Your task to perform on an android device: toggle javascript in the chrome app Image 0: 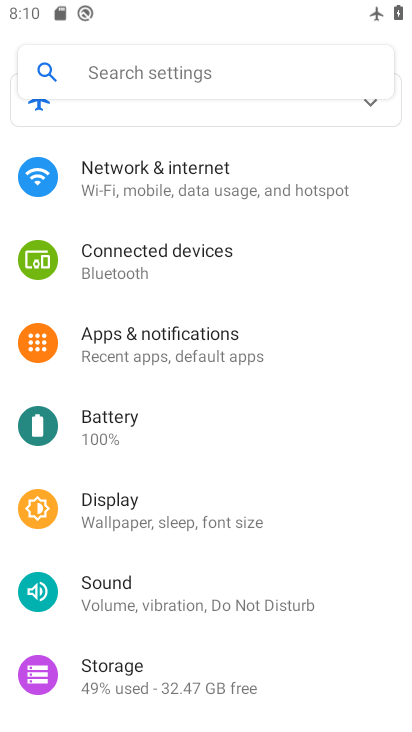
Step 0: press home button
Your task to perform on an android device: toggle javascript in the chrome app Image 1: 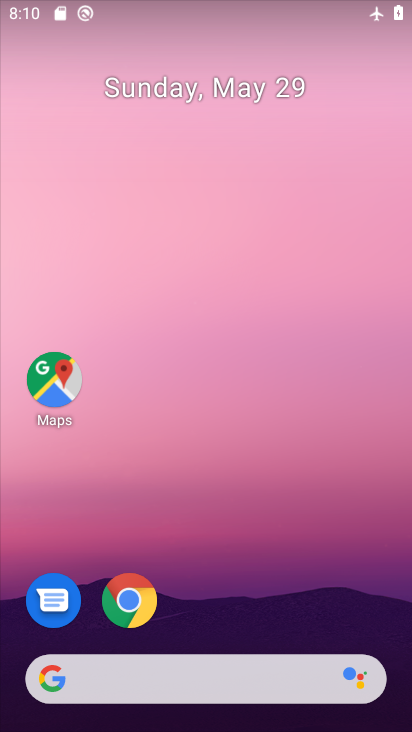
Step 1: click (141, 602)
Your task to perform on an android device: toggle javascript in the chrome app Image 2: 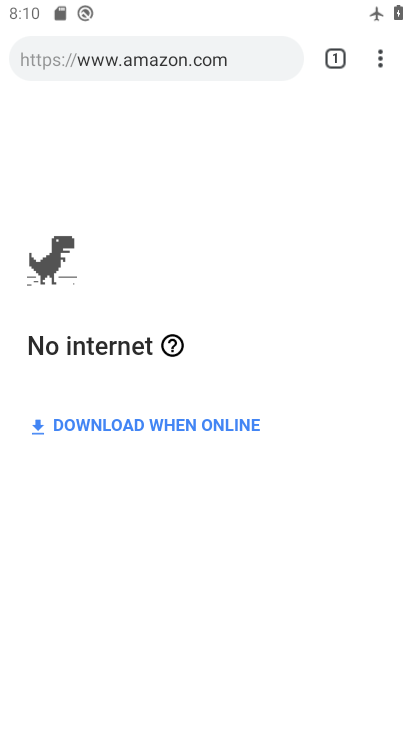
Step 2: click (387, 64)
Your task to perform on an android device: toggle javascript in the chrome app Image 3: 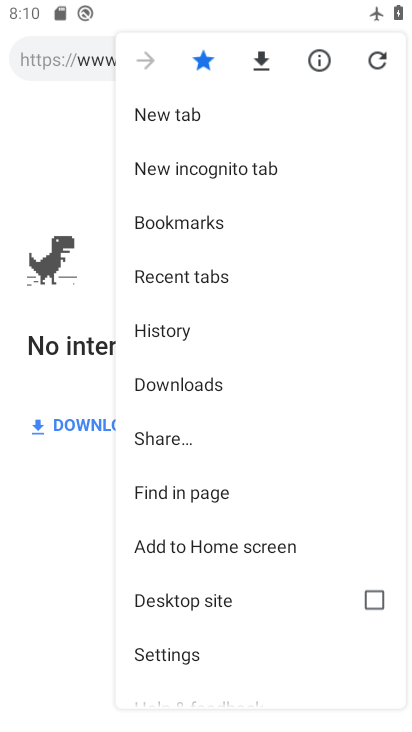
Step 3: click (162, 658)
Your task to perform on an android device: toggle javascript in the chrome app Image 4: 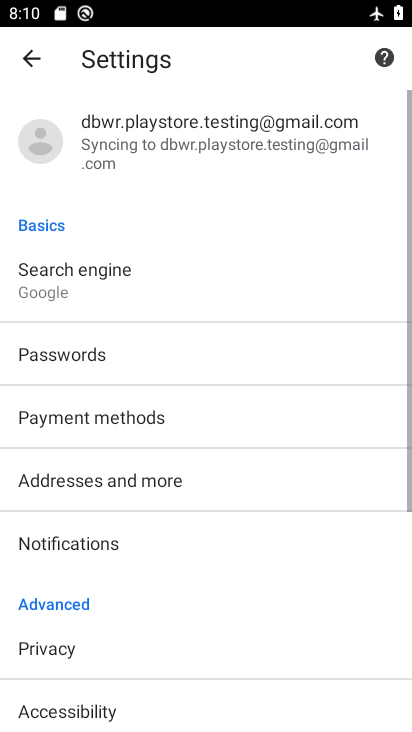
Step 4: drag from (132, 627) to (193, 347)
Your task to perform on an android device: toggle javascript in the chrome app Image 5: 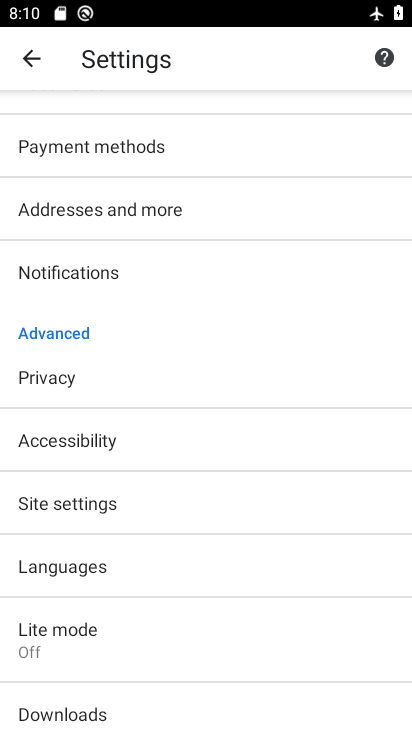
Step 5: click (105, 501)
Your task to perform on an android device: toggle javascript in the chrome app Image 6: 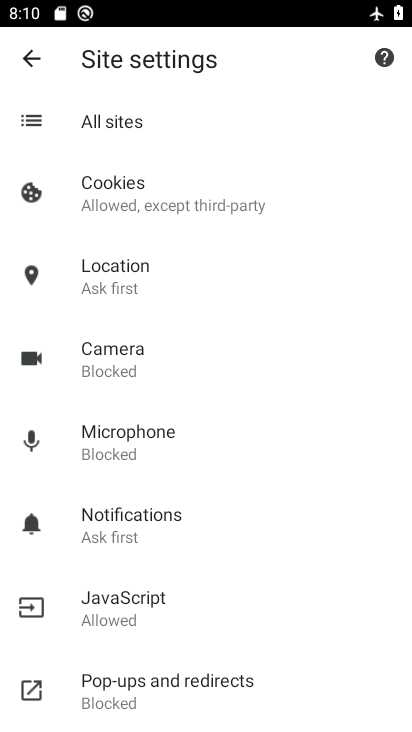
Step 6: click (146, 619)
Your task to perform on an android device: toggle javascript in the chrome app Image 7: 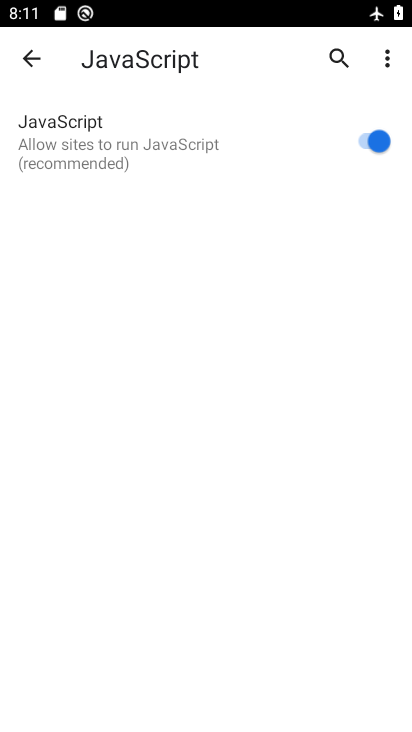
Step 7: click (353, 147)
Your task to perform on an android device: toggle javascript in the chrome app Image 8: 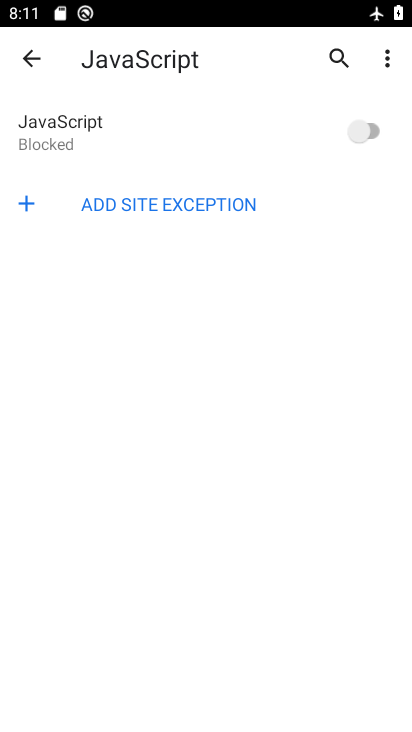
Step 8: task complete